Your task to perform on an android device: empty trash in google photos Image 0: 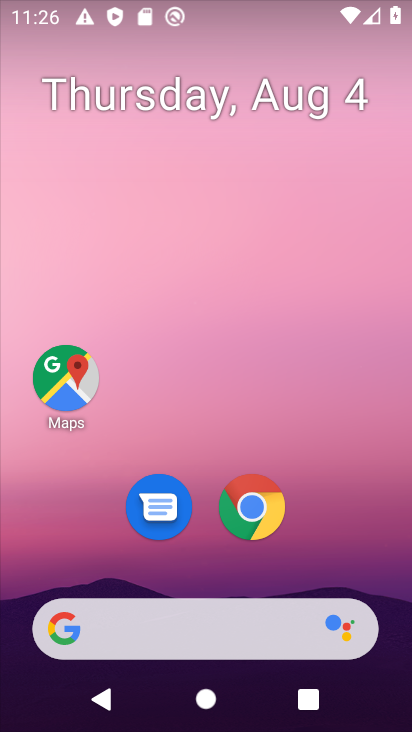
Step 0: drag from (316, 542) to (292, 134)
Your task to perform on an android device: empty trash in google photos Image 1: 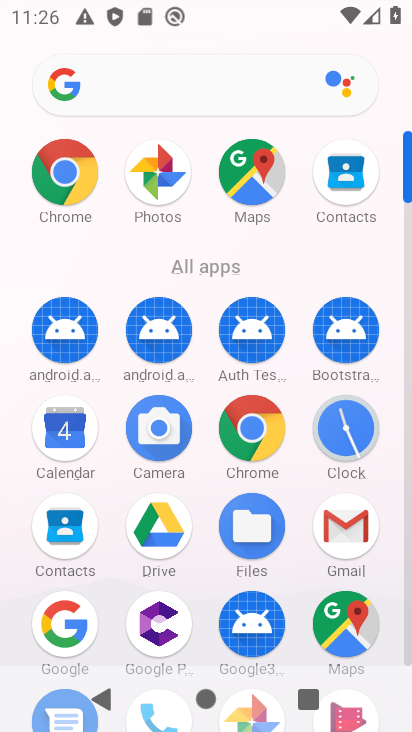
Step 1: click (169, 170)
Your task to perform on an android device: empty trash in google photos Image 2: 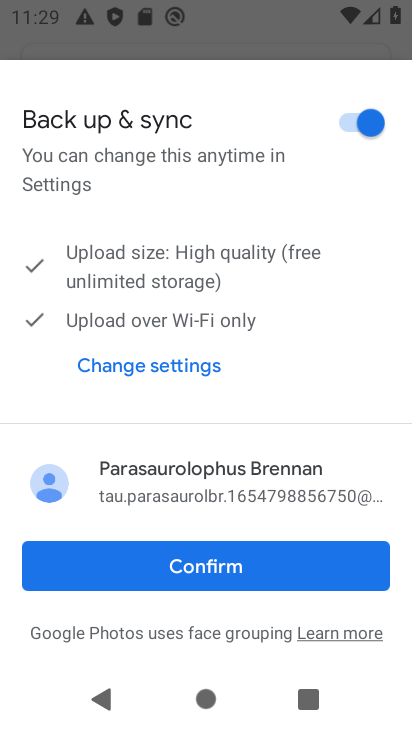
Step 2: press home button
Your task to perform on an android device: empty trash in google photos Image 3: 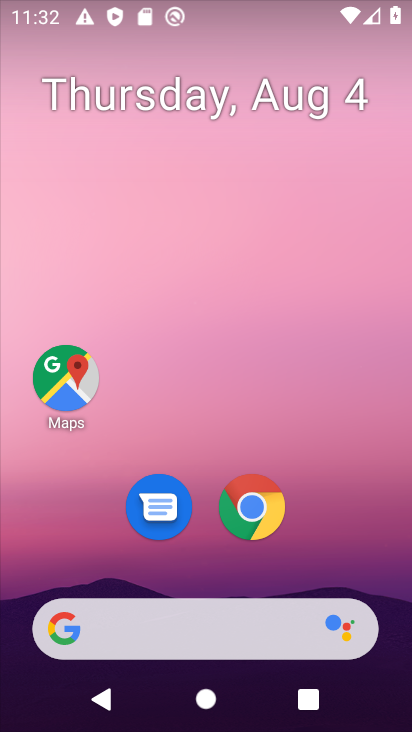
Step 3: drag from (334, 491) to (357, 156)
Your task to perform on an android device: empty trash in google photos Image 4: 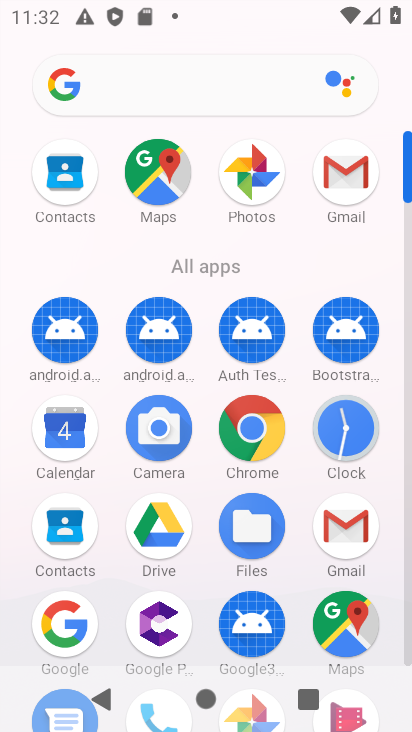
Step 4: click (246, 171)
Your task to perform on an android device: empty trash in google photos Image 5: 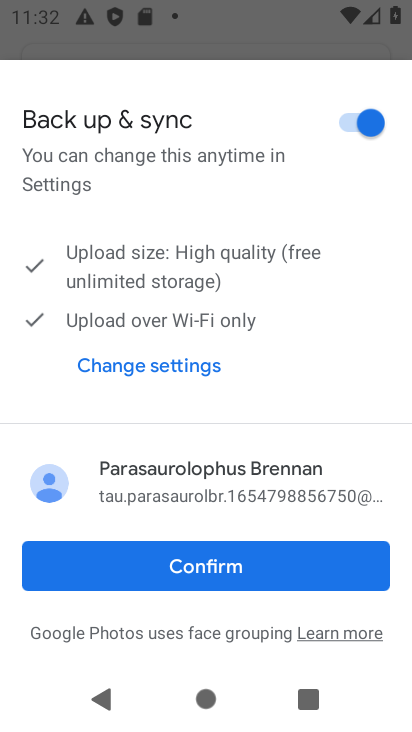
Step 5: click (213, 556)
Your task to perform on an android device: empty trash in google photos Image 6: 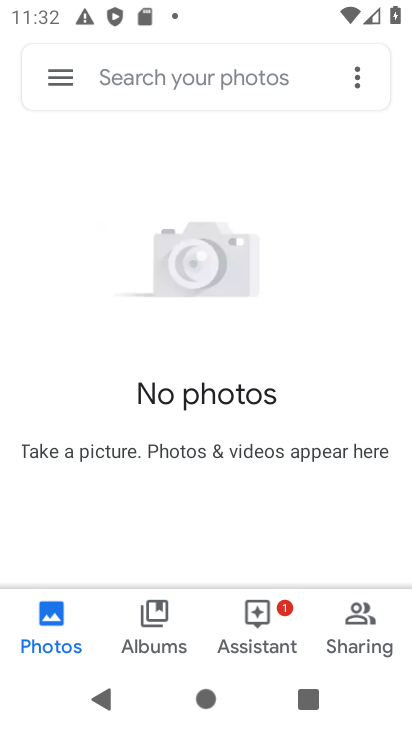
Step 6: click (41, 79)
Your task to perform on an android device: empty trash in google photos Image 7: 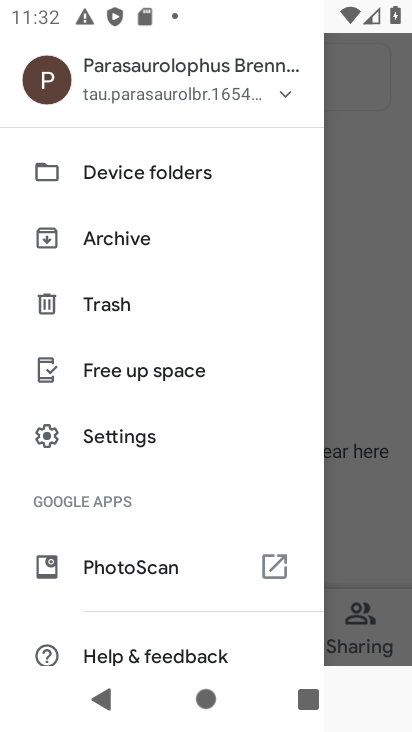
Step 7: click (134, 308)
Your task to perform on an android device: empty trash in google photos Image 8: 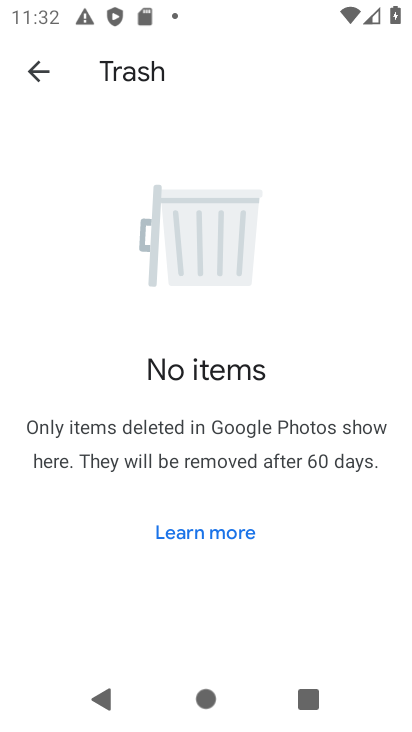
Step 8: task complete